Your task to perform on an android device: set the timer Image 0: 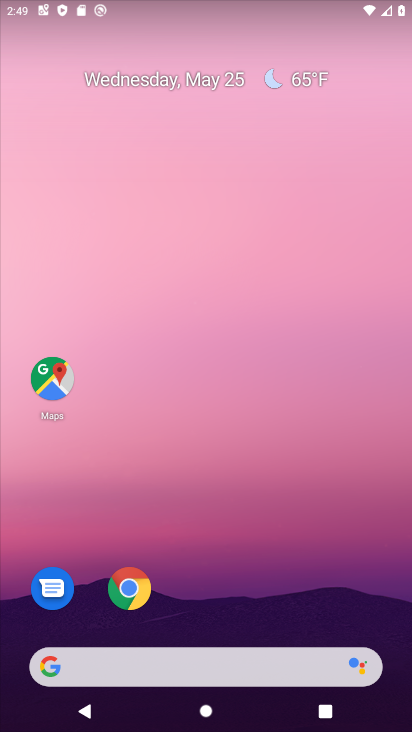
Step 0: drag from (186, 499) to (191, 173)
Your task to perform on an android device: set the timer Image 1: 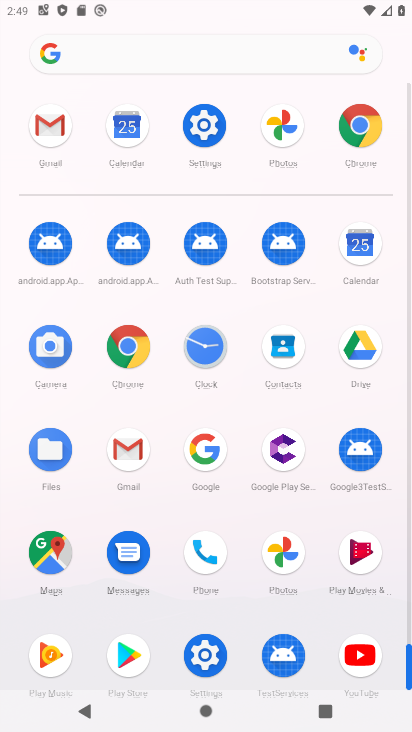
Step 1: click (203, 336)
Your task to perform on an android device: set the timer Image 2: 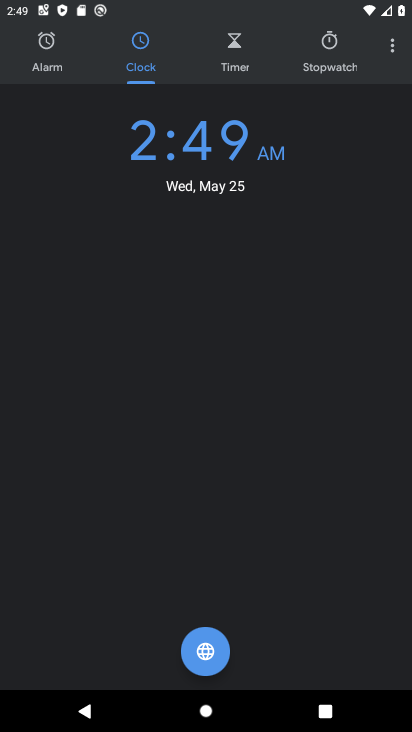
Step 2: click (239, 68)
Your task to perform on an android device: set the timer Image 3: 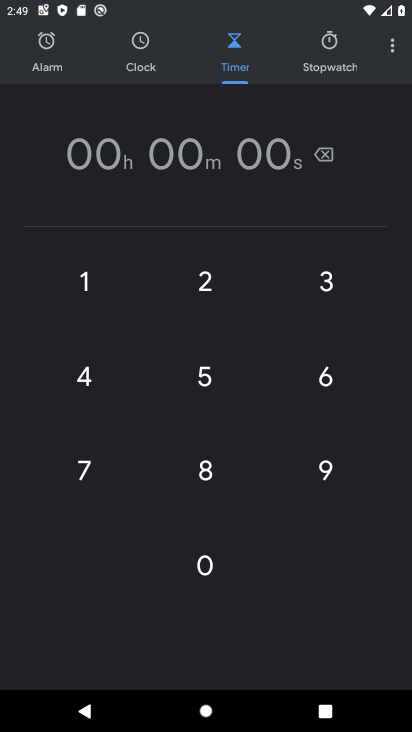
Step 3: click (197, 289)
Your task to perform on an android device: set the timer Image 4: 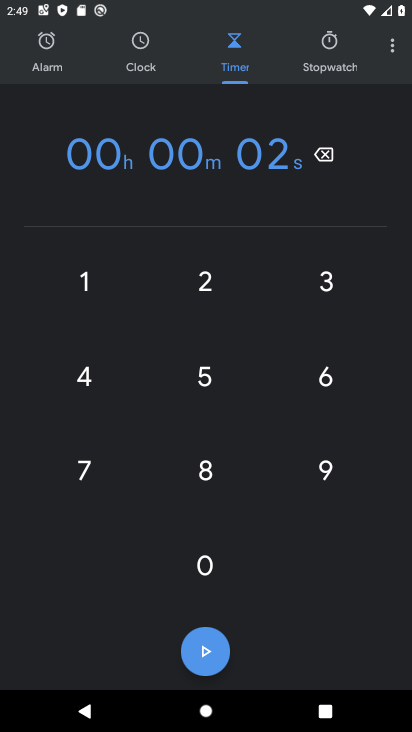
Step 4: click (311, 289)
Your task to perform on an android device: set the timer Image 5: 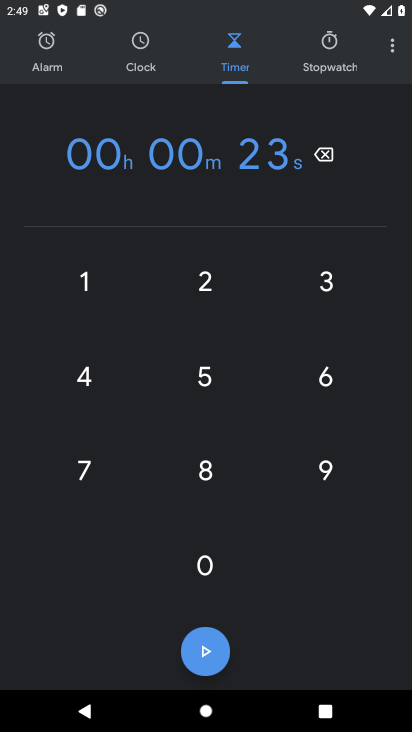
Step 5: click (312, 287)
Your task to perform on an android device: set the timer Image 6: 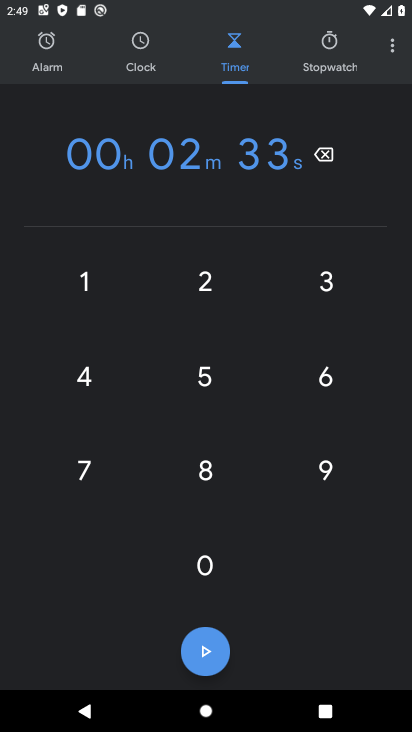
Step 6: task complete